Your task to perform on an android device: open app "Google Keep" Image 0: 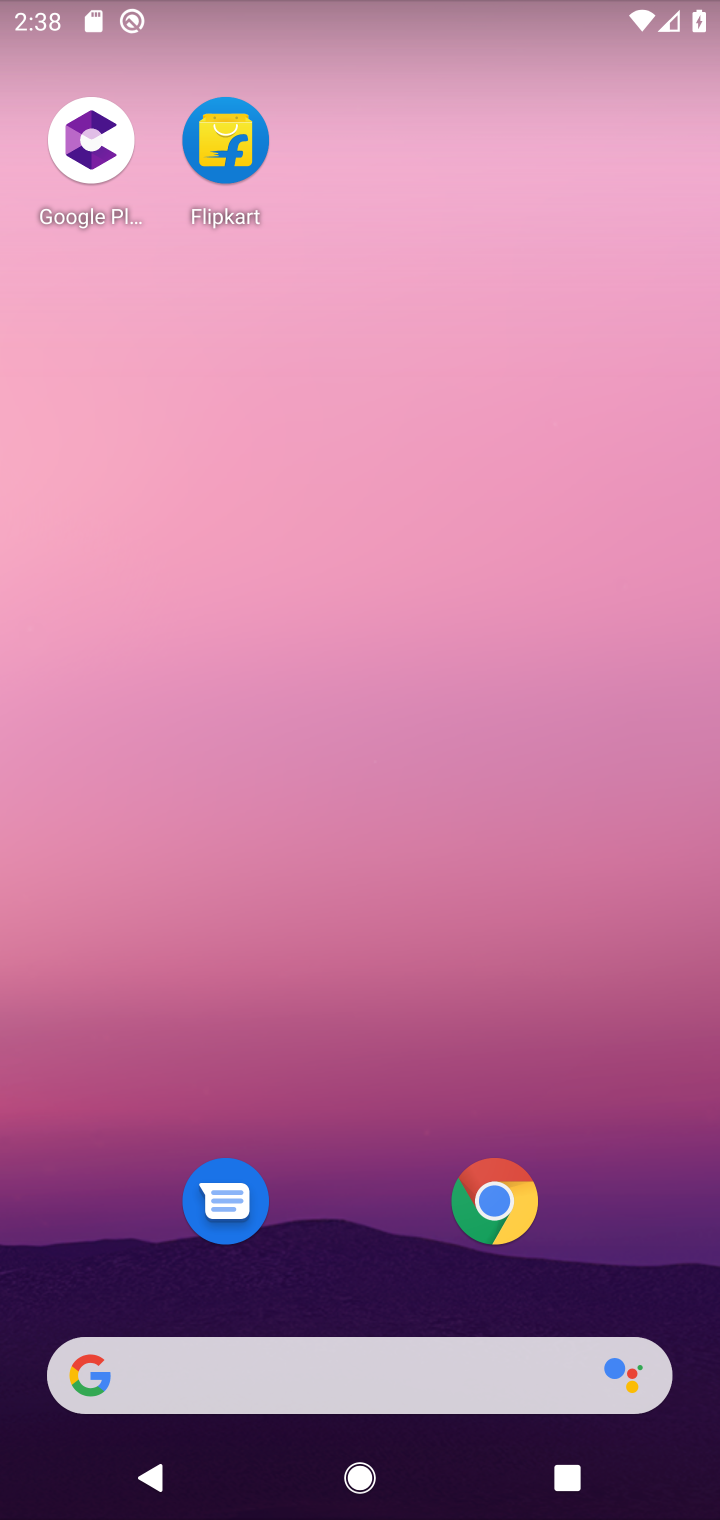
Step 0: drag from (645, 886) to (585, 268)
Your task to perform on an android device: open app "Google Keep" Image 1: 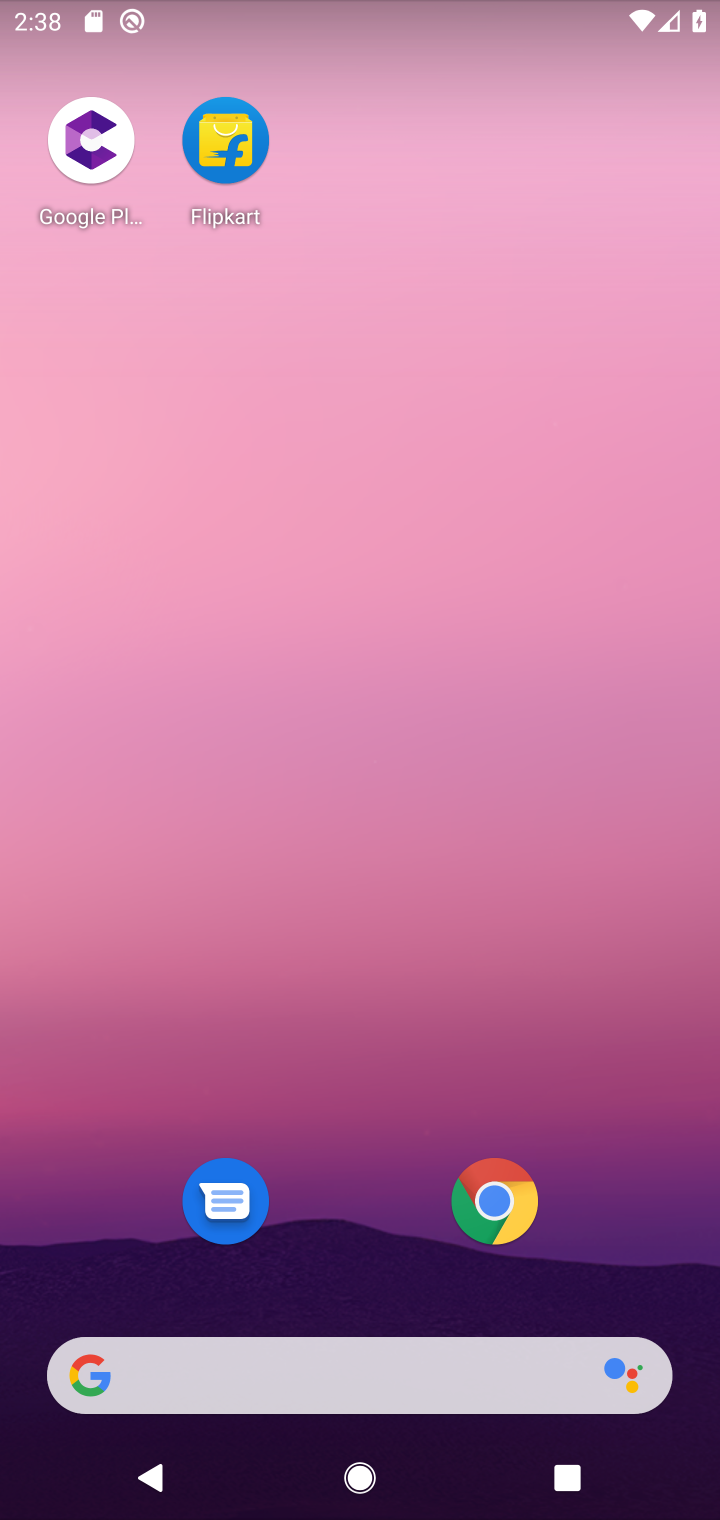
Step 1: drag from (661, 1243) to (577, 365)
Your task to perform on an android device: open app "Google Keep" Image 2: 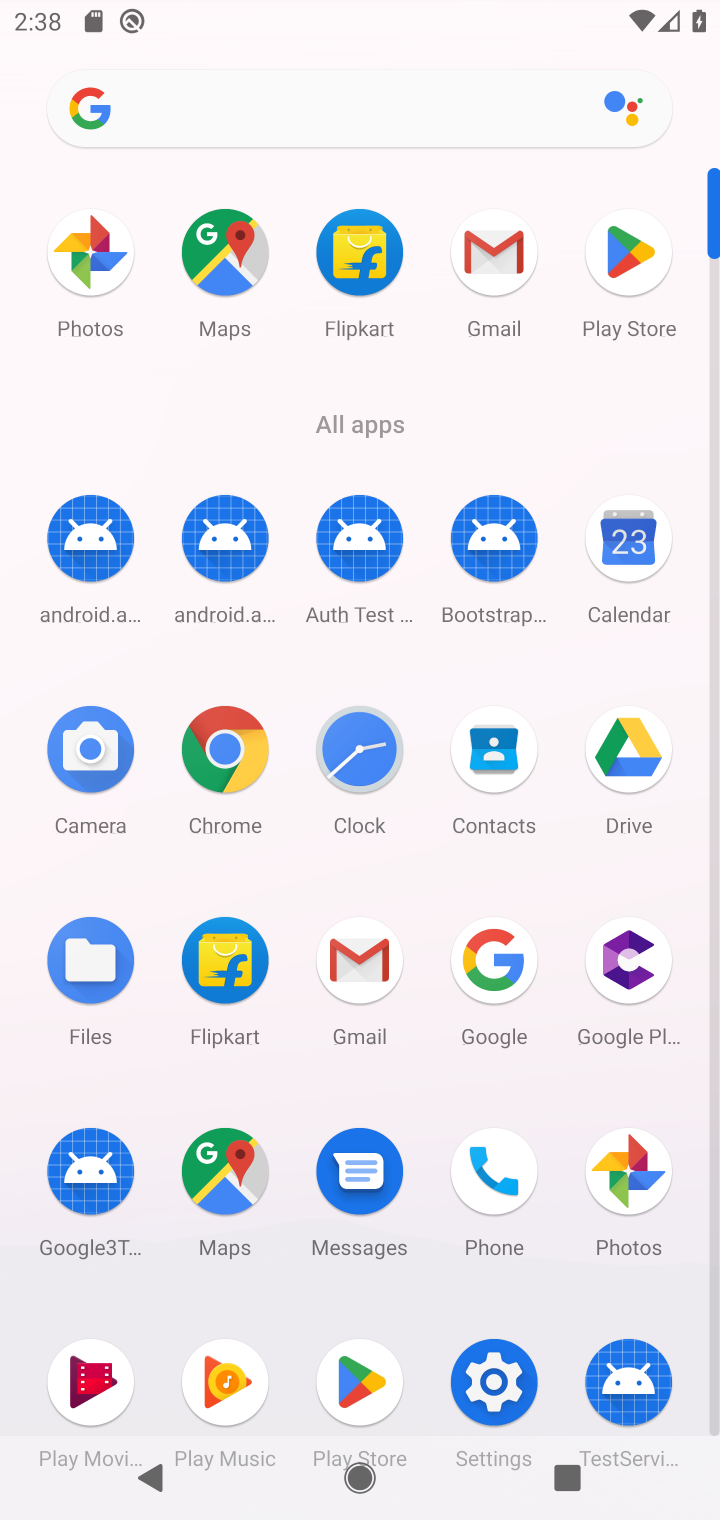
Step 2: click (363, 1383)
Your task to perform on an android device: open app "Google Keep" Image 3: 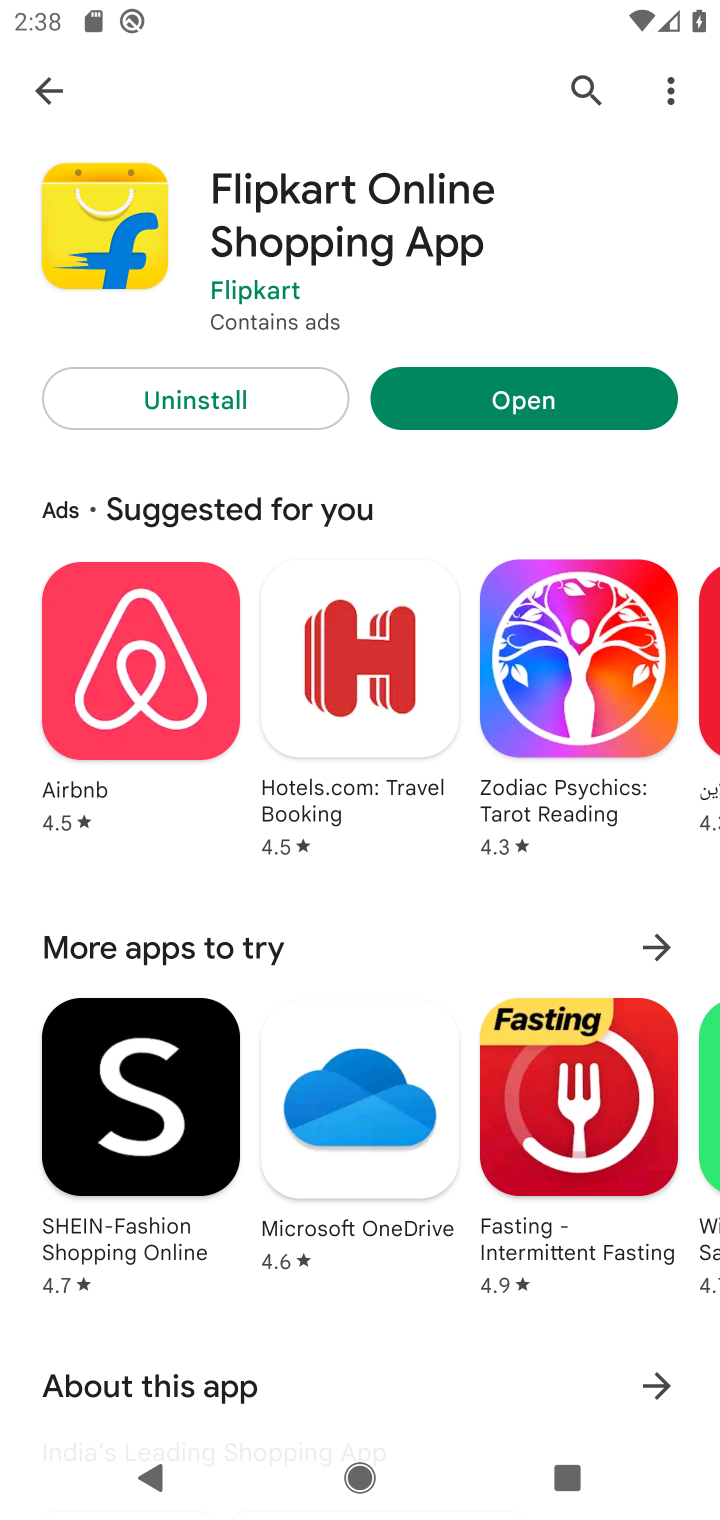
Step 3: click (583, 91)
Your task to perform on an android device: open app "Google Keep" Image 4: 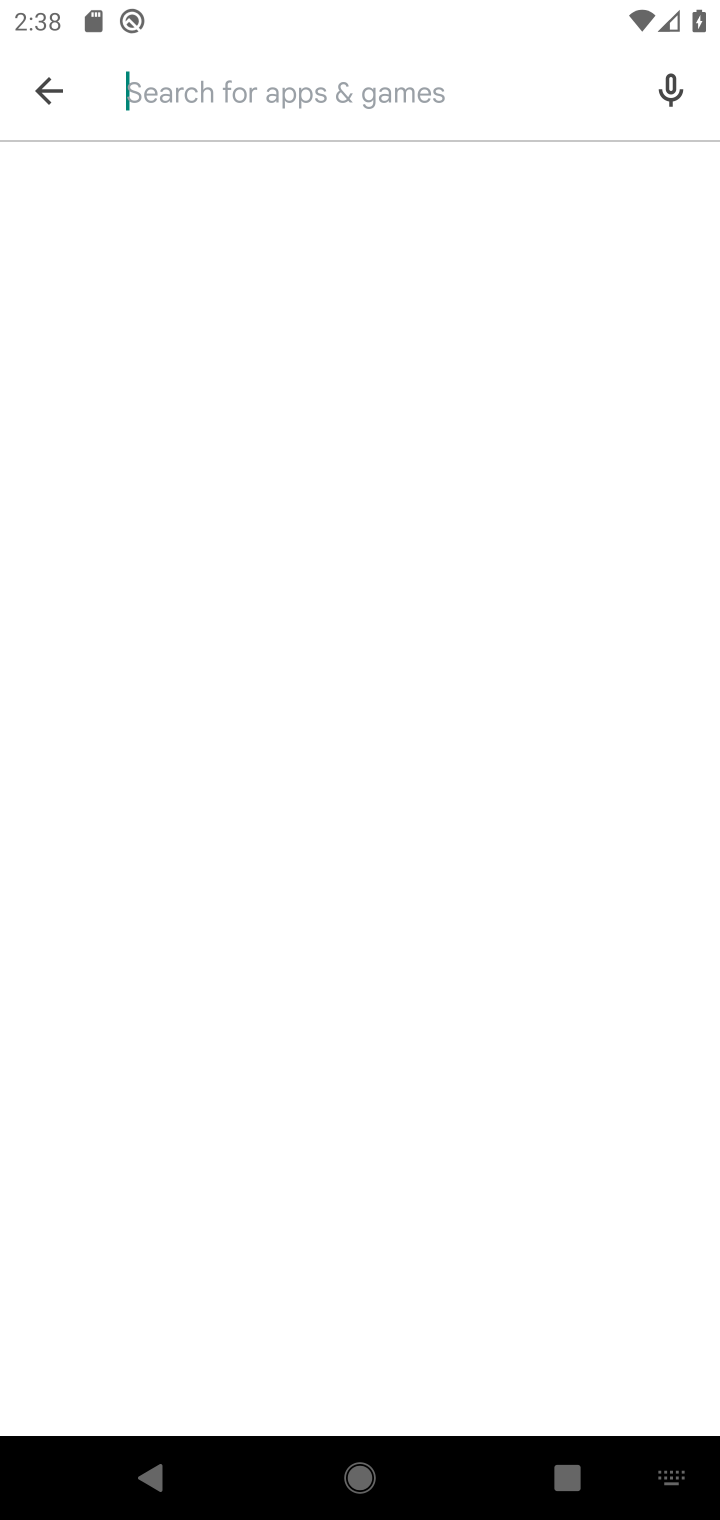
Step 4: type "Google Keep"
Your task to perform on an android device: open app "Google Keep" Image 5: 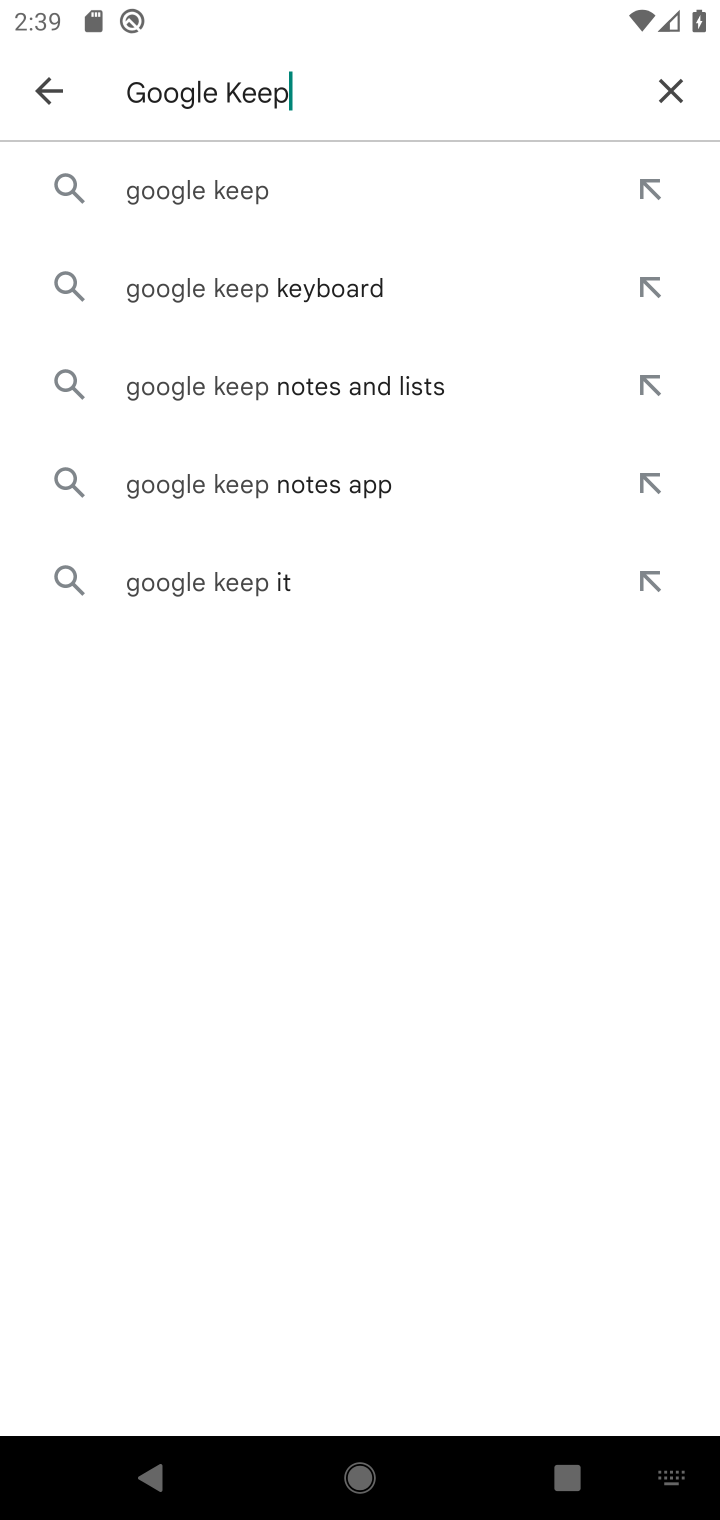
Step 5: click (213, 188)
Your task to perform on an android device: open app "Google Keep" Image 6: 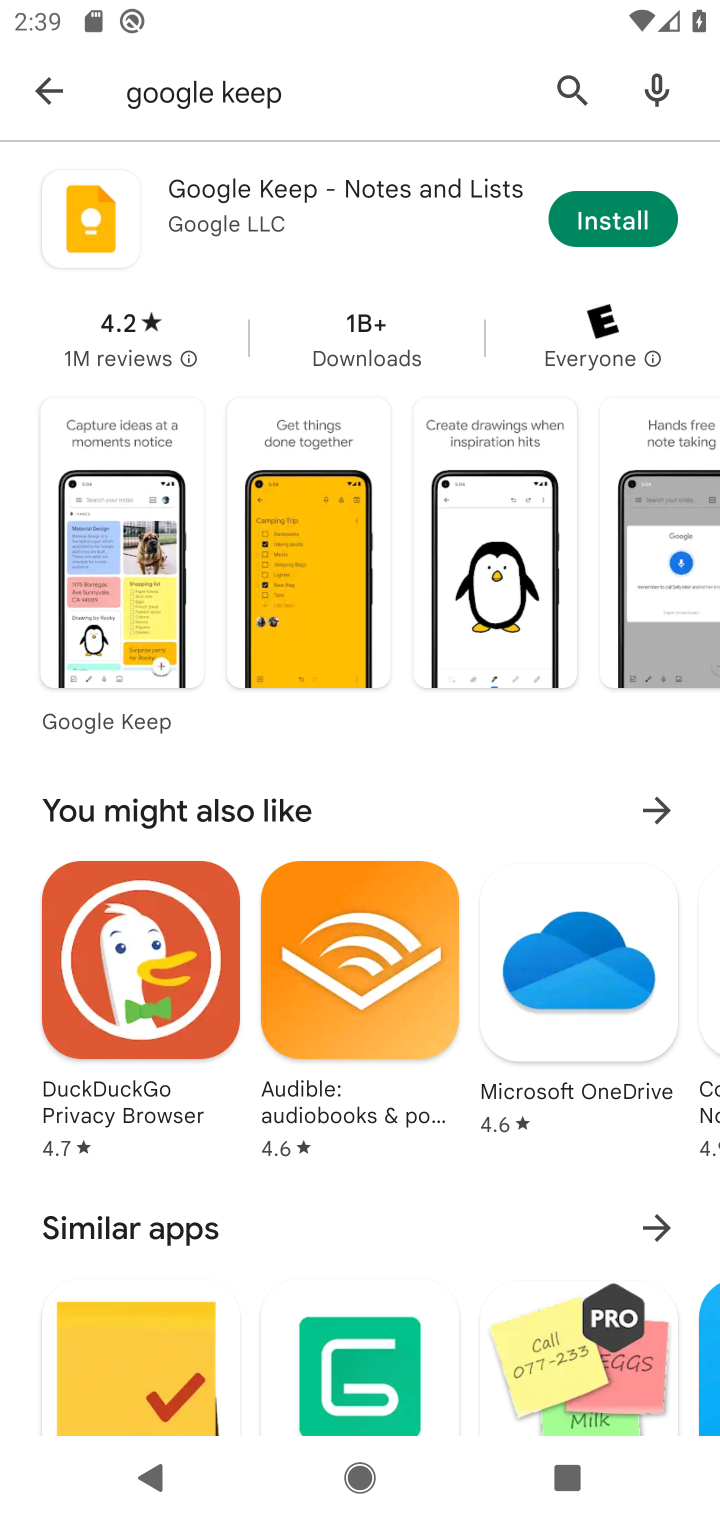
Step 6: task complete